Your task to perform on an android device: Search for pizza restaurants on Maps Image 0: 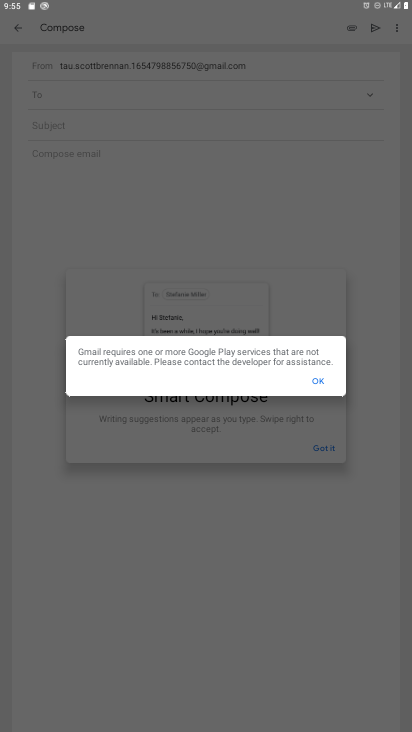
Step 0: press home button
Your task to perform on an android device: Search for pizza restaurants on Maps Image 1: 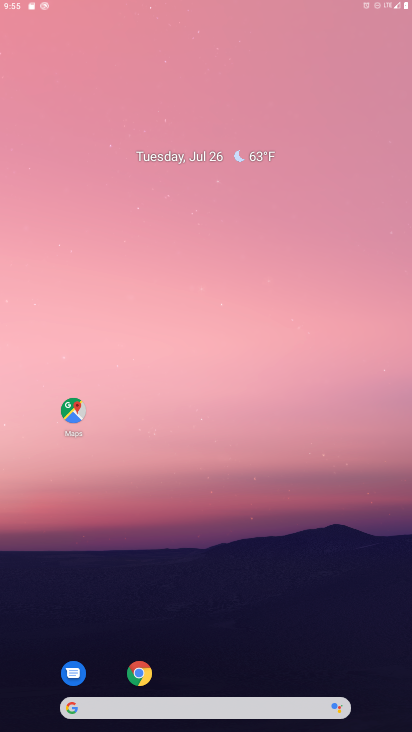
Step 1: drag from (385, 689) to (126, 11)
Your task to perform on an android device: Search for pizza restaurants on Maps Image 2: 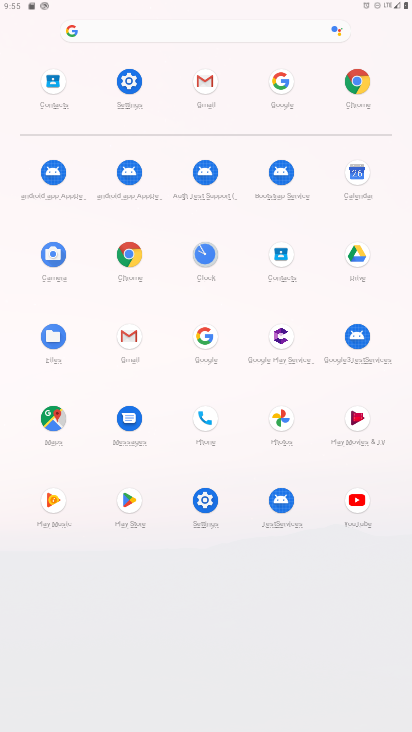
Step 2: click (62, 418)
Your task to perform on an android device: Search for pizza restaurants on Maps Image 3: 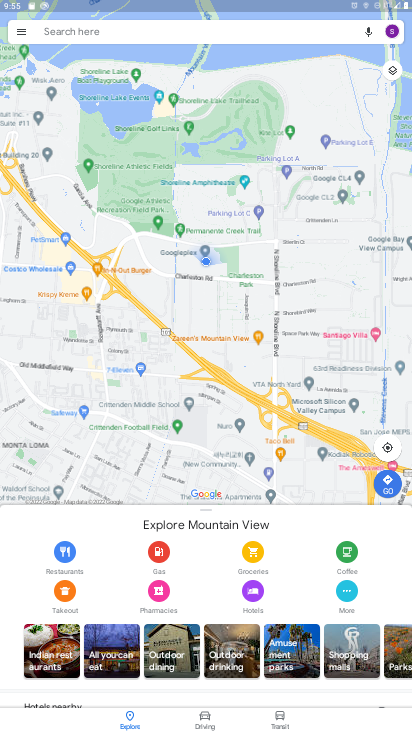
Step 3: click (112, 29)
Your task to perform on an android device: Search for pizza restaurants on Maps Image 4: 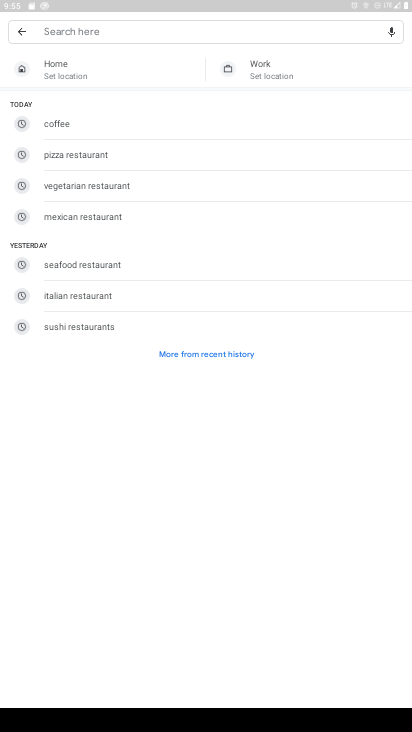
Step 4: click (101, 155)
Your task to perform on an android device: Search for pizza restaurants on Maps Image 5: 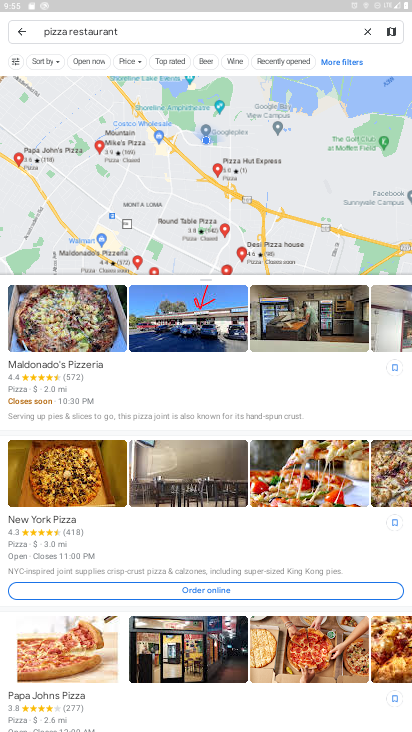
Step 5: task complete